Your task to perform on an android device: Toggle the flashlight Image 0: 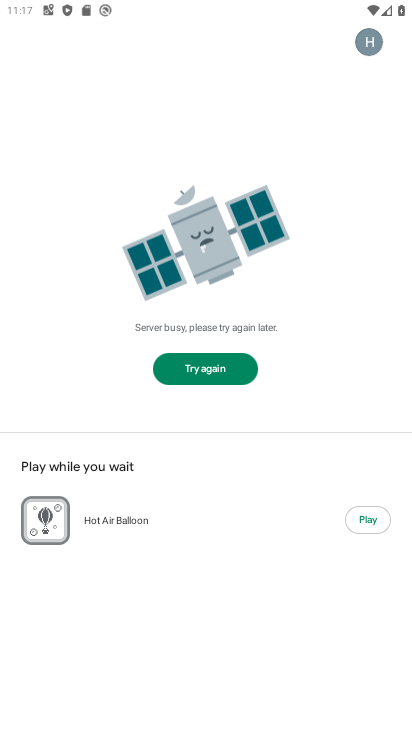
Step 0: press home button
Your task to perform on an android device: Toggle the flashlight Image 1: 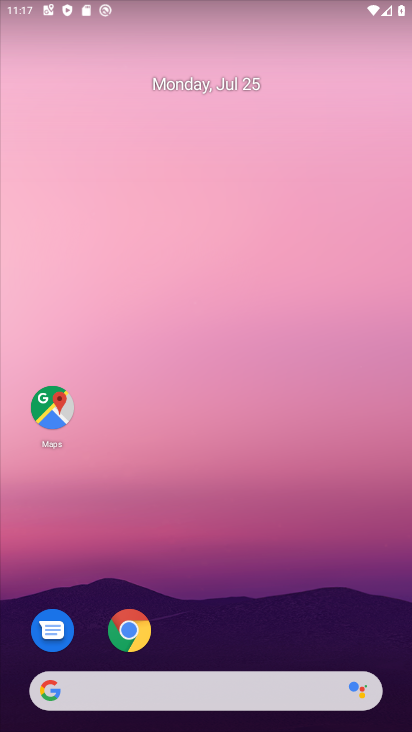
Step 1: drag from (220, 608) to (269, 3)
Your task to perform on an android device: Toggle the flashlight Image 2: 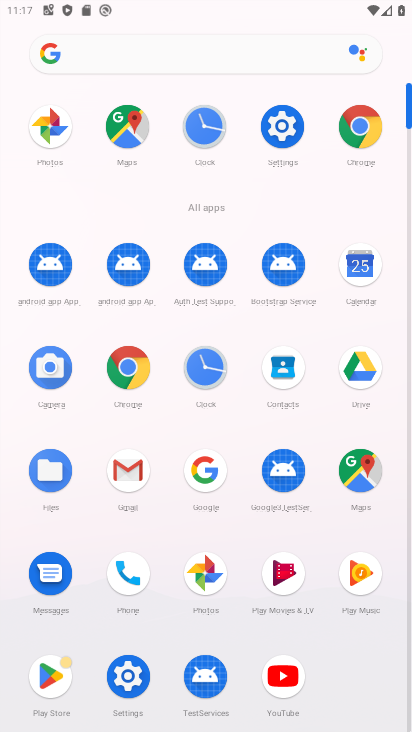
Step 2: click (288, 128)
Your task to perform on an android device: Toggle the flashlight Image 3: 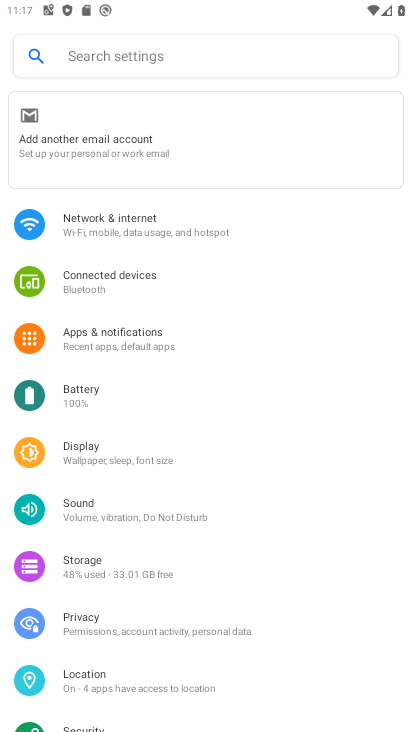
Step 3: task complete